Your task to perform on an android device: set the timer Image 0: 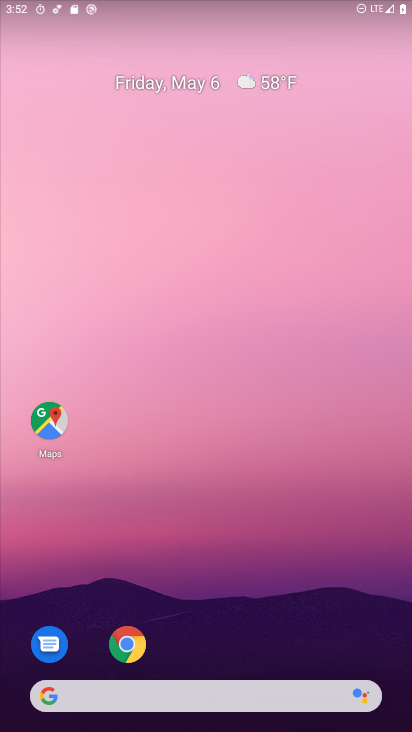
Step 0: drag from (215, 727) to (216, 141)
Your task to perform on an android device: set the timer Image 1: 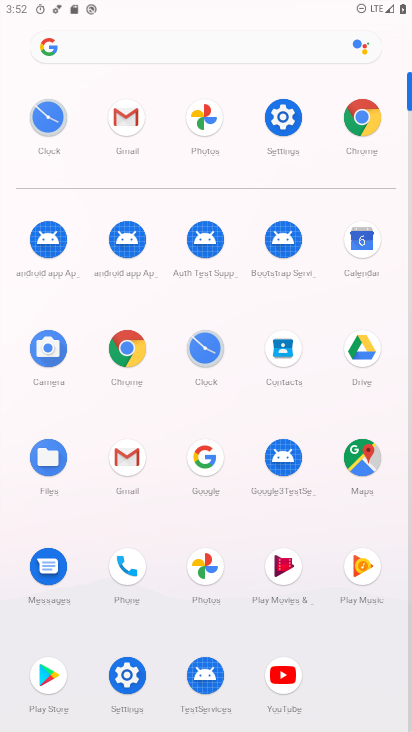
Step 1: click (211, 354)
Your task to perform on an android device: set the timer Image 2: 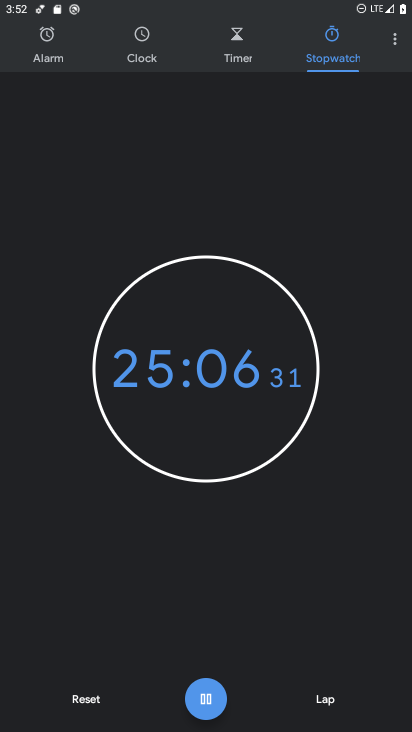
Step 2: click (239, 28)
Your task to perform on an android device: set the timer Image 3: 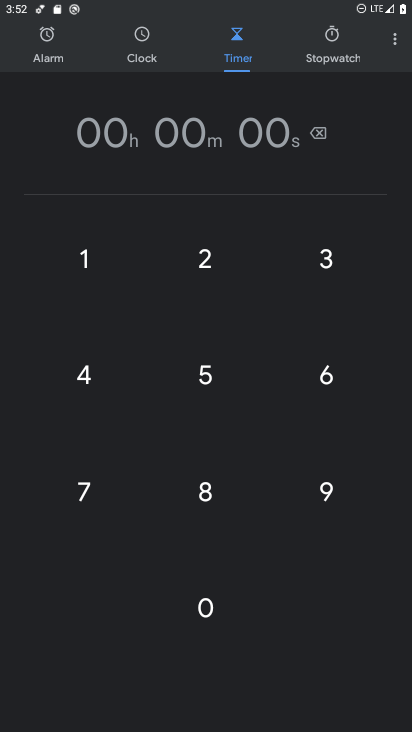
Step 3: click (88, 255)
Your task to perform on an android device: set the timer Image 4: 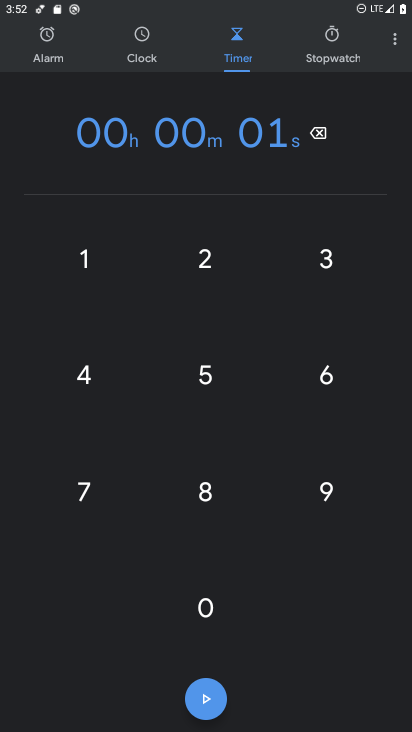
Step 4: click (89, 377)
Your task to perform on an android device: set the timer Image 5: 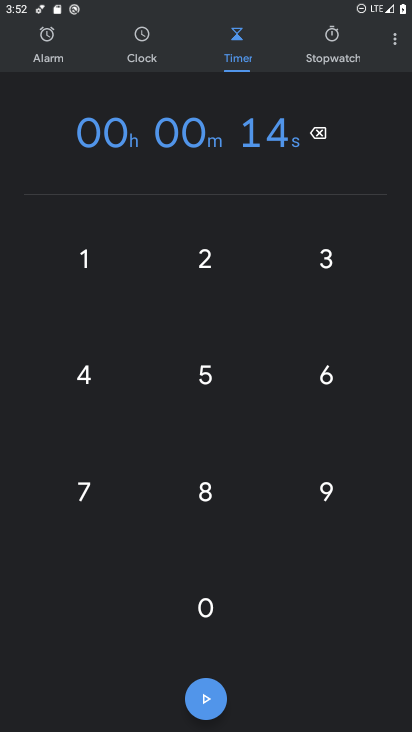
Step 5: click (210, 266)
Your task to perform on an android device: set the timer Image 6: 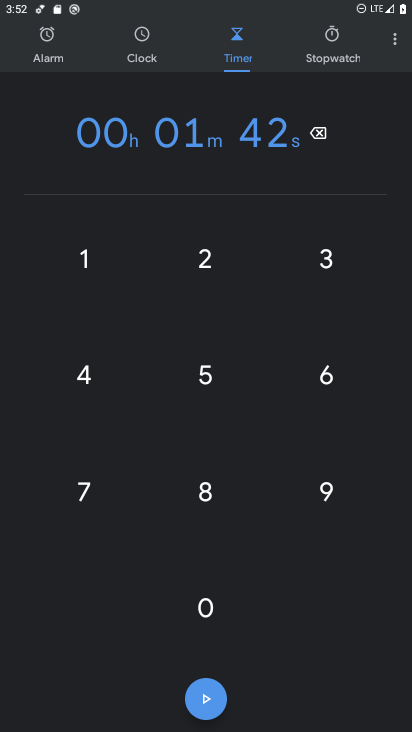
Step 6: click (325, 370)
Your task to perform on an android device: set the timer Image 7: 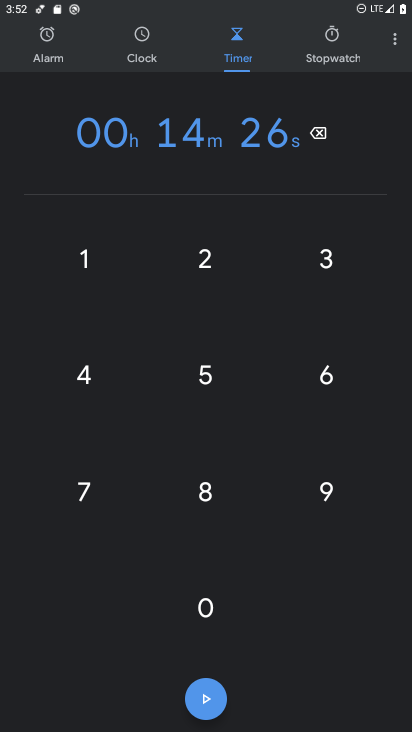
Step 7: click (205, 696)
Your task to perform on an android device: set the timer Image 8: 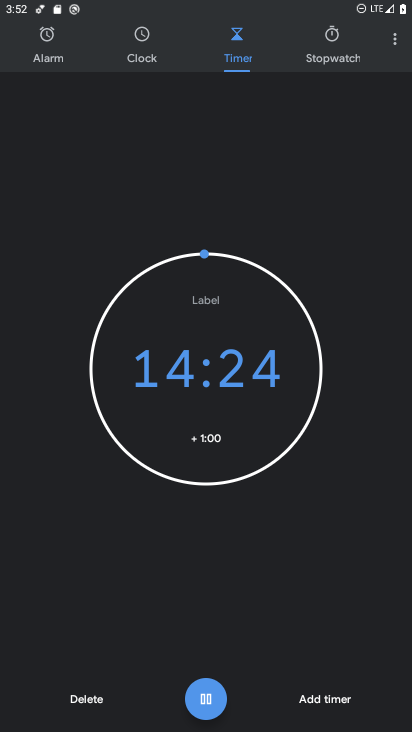
Step 8: task complete